Your task to perform on an android device: allow cookies in the chrome app Image 0: 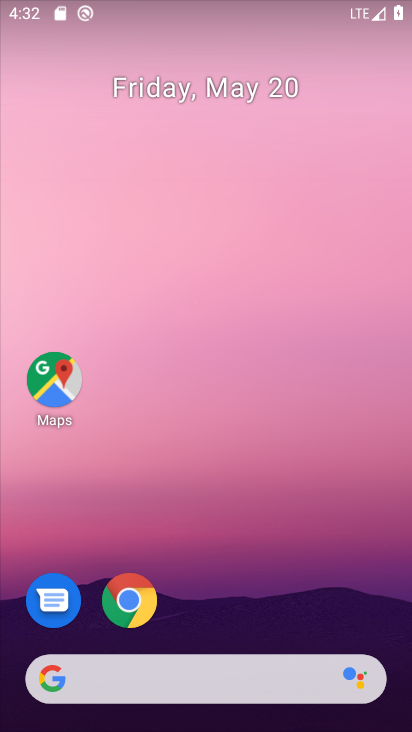
Step 0: click (140, 593)
Your task to perform on an android device: allow cookies in the chrome app Image 1: 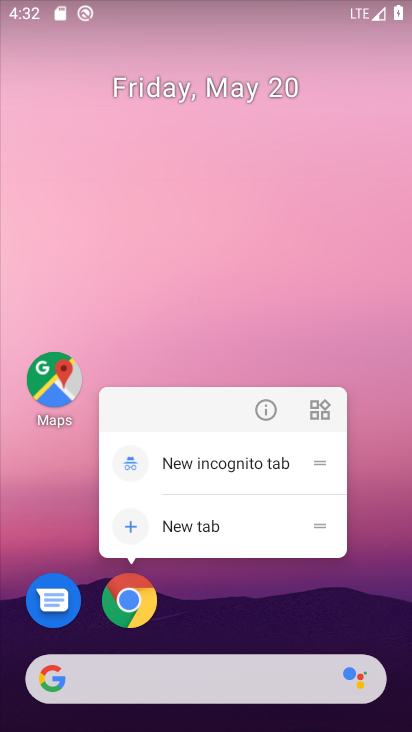
Step 1: click (133, 599)
Your task to perform on an android device: allow cookies in the chrome app Image 2: 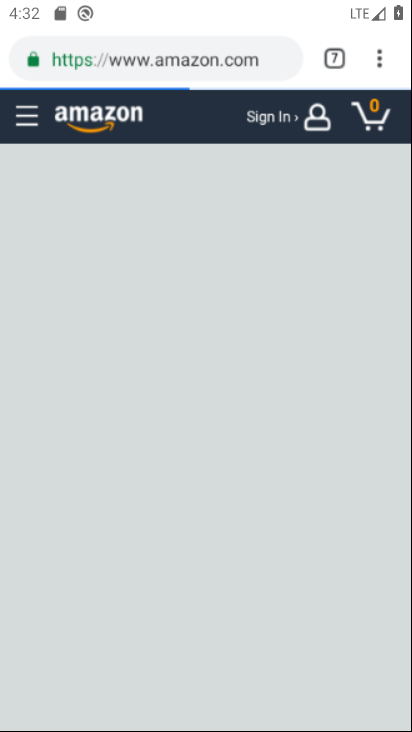
Step 2: click (371, 67)
Your task to perform on an android device: allow cookies in the chrome app Image 3: 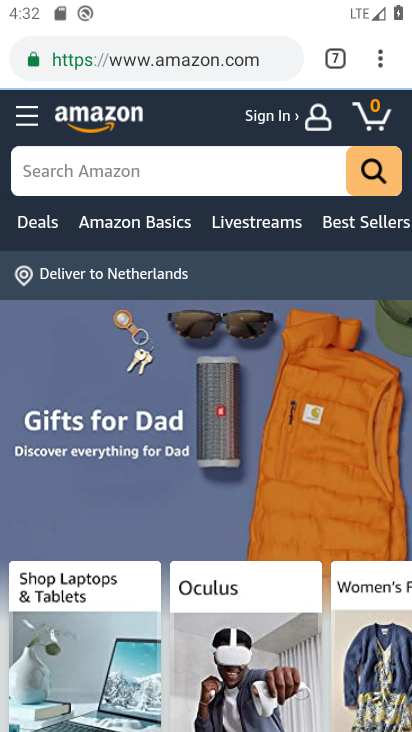
Step 3: click (386, 57)
Your task to perform on an android device: allow cookies in the chrome app Image 4: 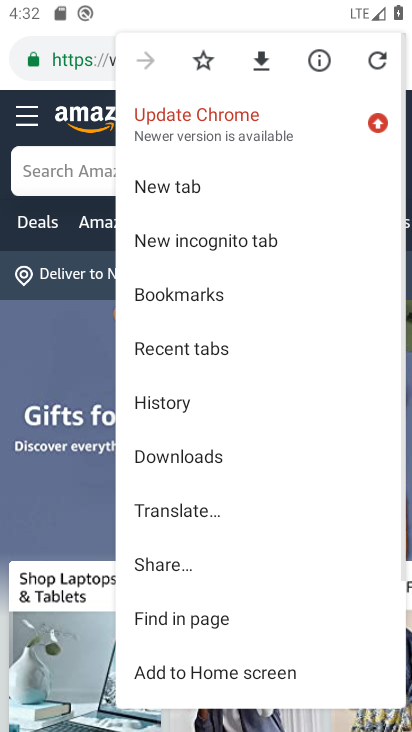
Step 4: drag from (262, 632) to (237, 127)
Your task to perform on an android device: allow cookies in the chrome app Image 5: 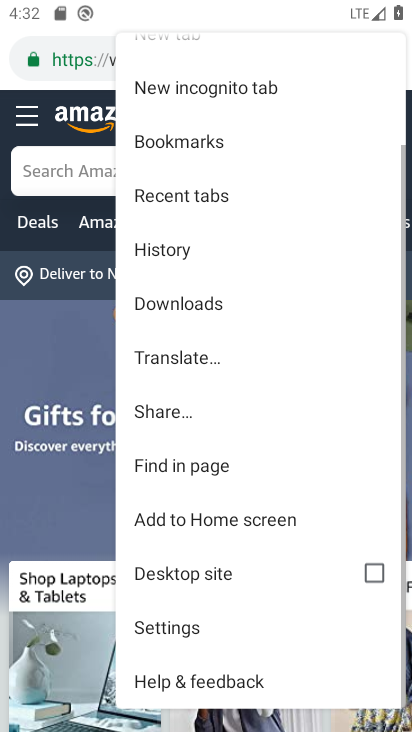
Step 5: click (201, 633)
Your task to perform on an android device: allow cookies in the chrome app Image 6: 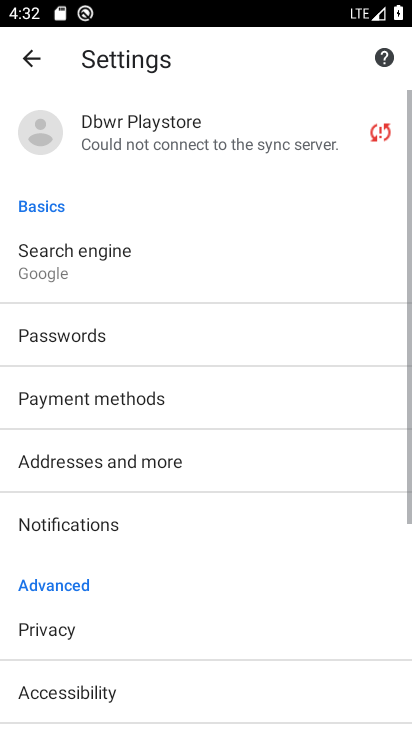
Step 6: drag from (178, 593) to (171, 219)
Your task to perform on an android device: allow cookies in the chrome app Image 7: 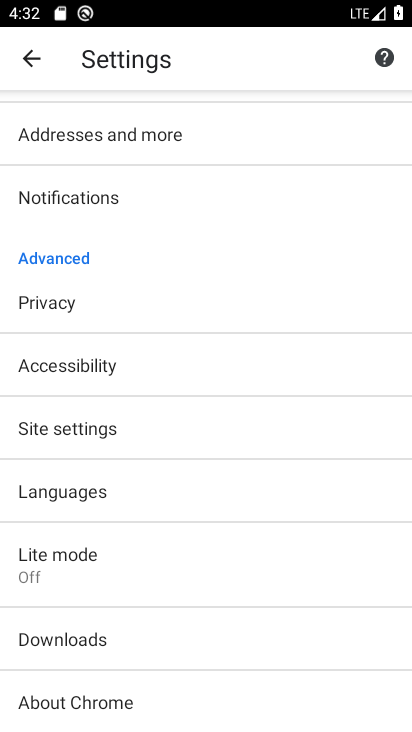
Step 7: click (137, 426)
Your task to perform on an android device: allow cookies in the chrome app Image 8: 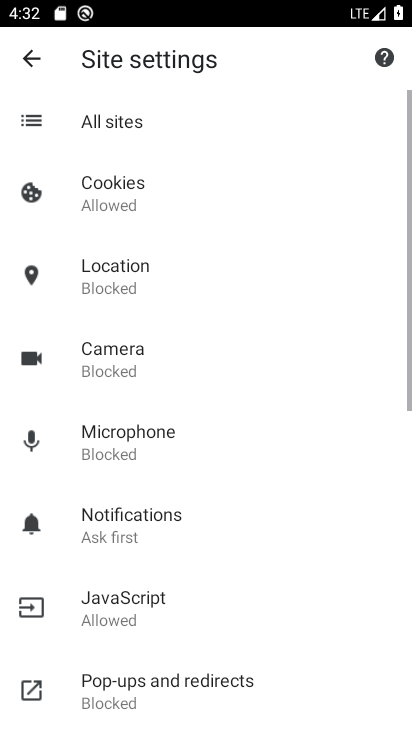
Step 8: click (160, 190)
Your task to perform on an android device: allow cookies in the chrome app Image 9: 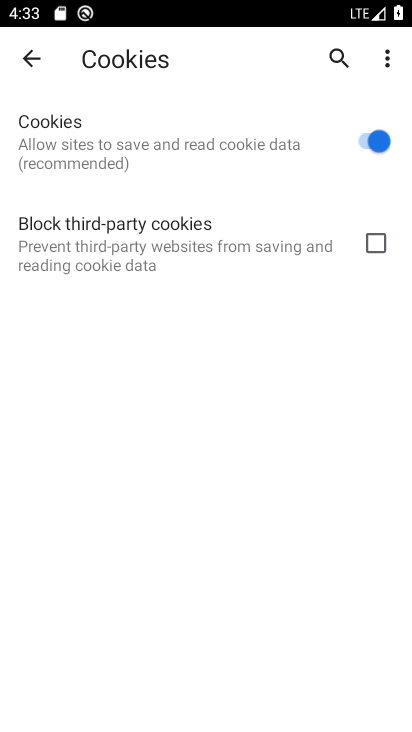
Step 9: task complete